Your task to perform on an android device: snooze an email in the gmail app Image 0: 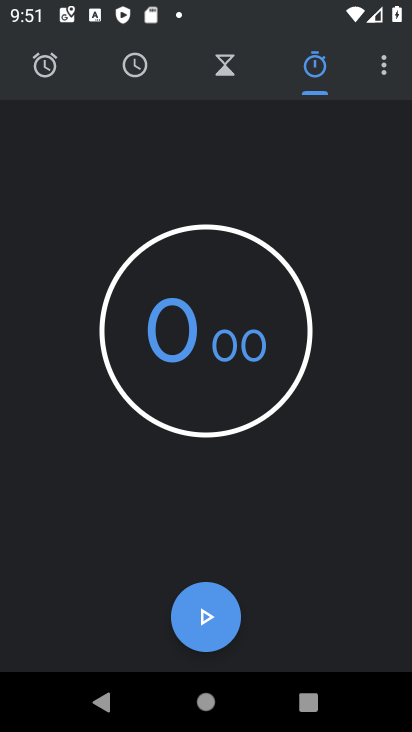
Step 0: press home button
Your task to perform on an android device: snooze an email in the gmail app Image 1: 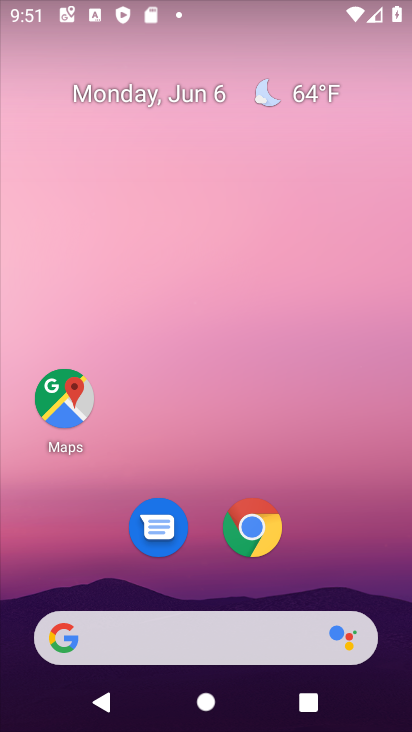
Step 1: drag from (209, 618) to (233, 179)
Your task to perform on an android device: snooze an email in the gmail app Image 2: 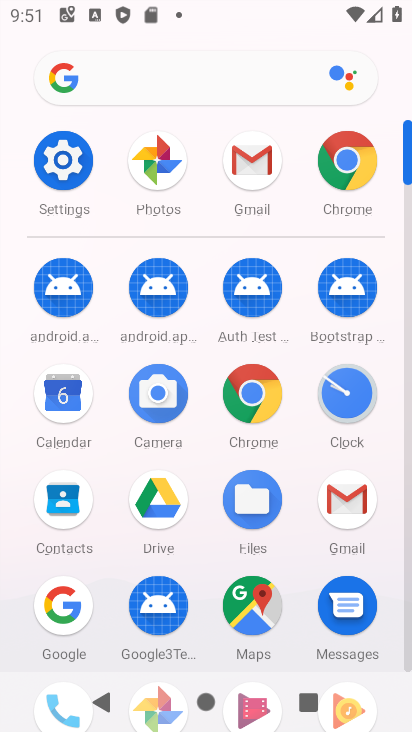
Step 2: click (358, 508)
Your task to perform on an android device: snooze an email in the gmail app Image 3: 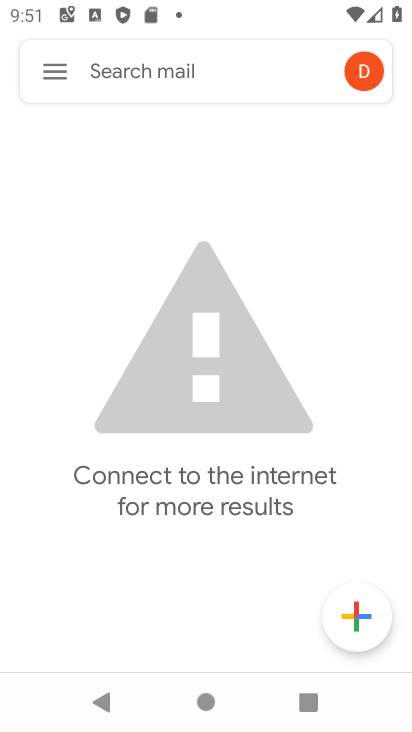
Step 3: click (48, 78)
Your task to perform on an android device: snooze an email in the gmail app Image 4: 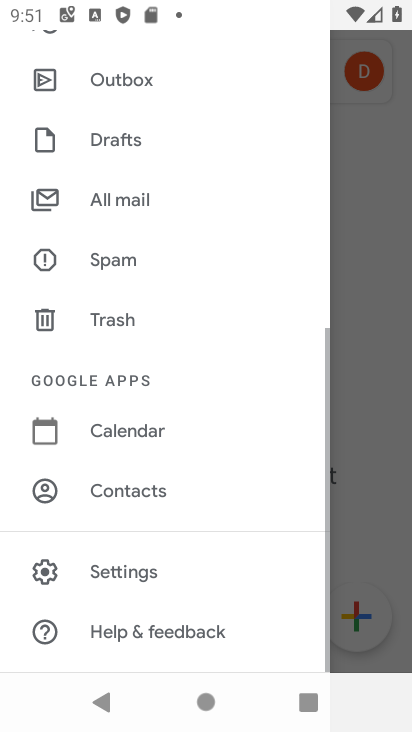
Step 4: click (128, 213)
Your task to perform on an android device: snooze an email in the gmail app Image 5: 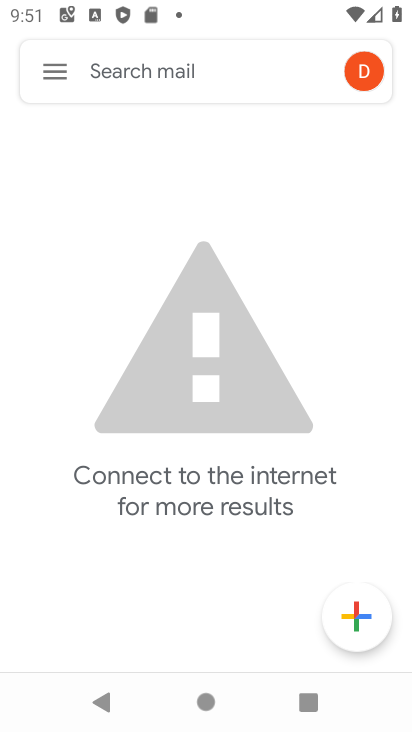
Step 5: task complete